Your task to perform on an android device: change the clock style Image 0: 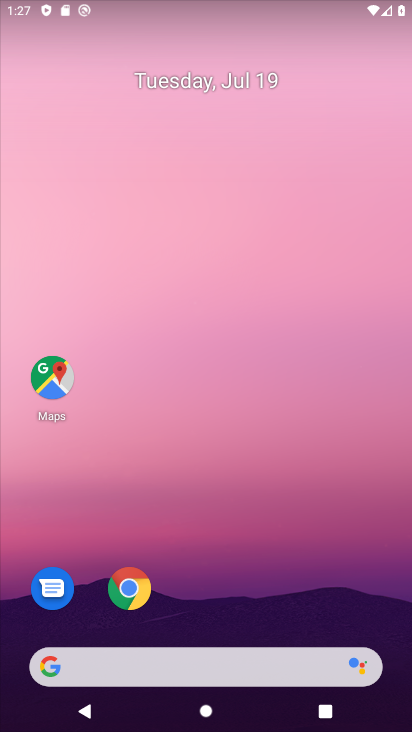
Step 0: drag from (222, 622) to (242, 111)
Your task to perform on an android device: change the clock style Image 1: 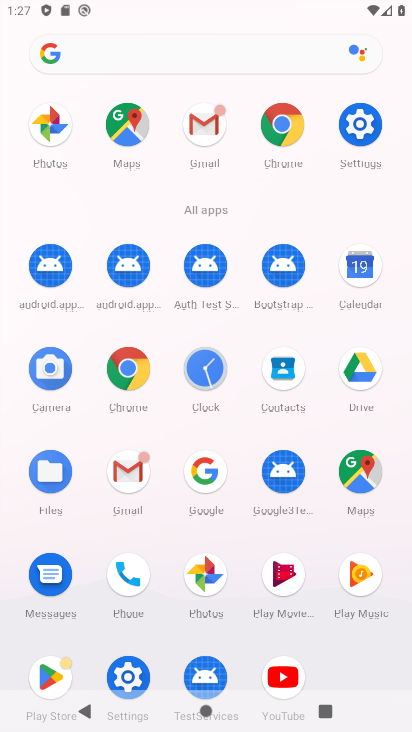
Step 1: click (213, 370)
Your task to perform on an android device: change the clock style Image 2: 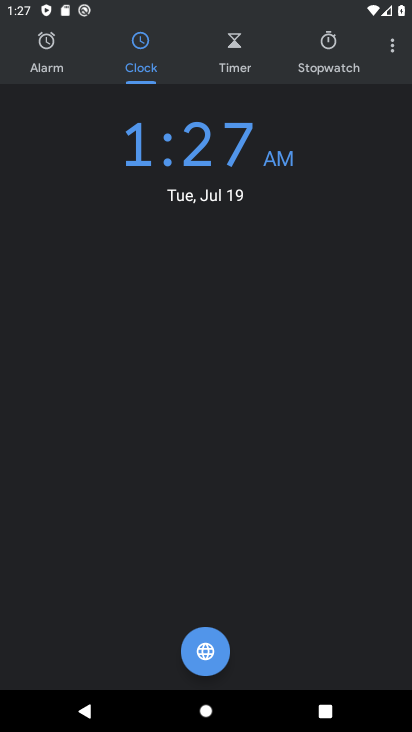
Step 2: click (395, 45)
Your task to perform on an android device: change the clock style Image 3: 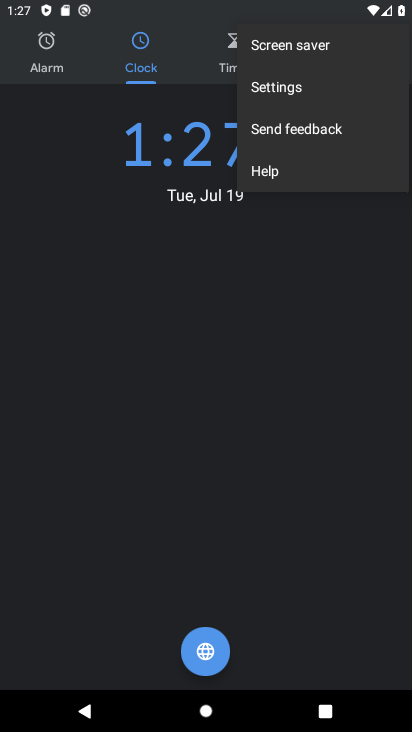
Step 3: click (331, 84)
Your task to perform on an android device: change the clock style Image 4: 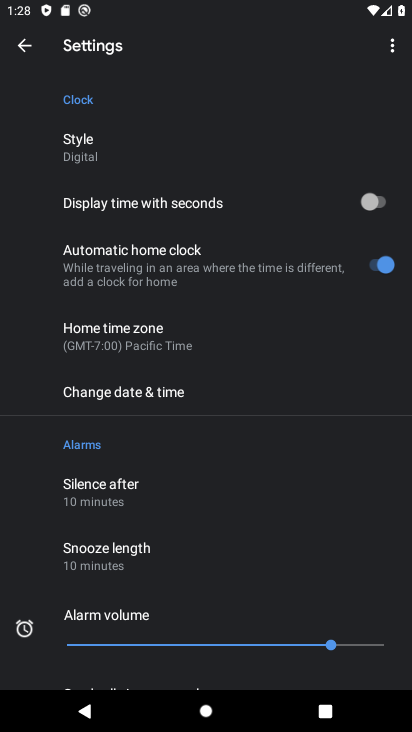
Step 4: click (269, 142)
Your task to perform on an android device: change the clock style Image 5: 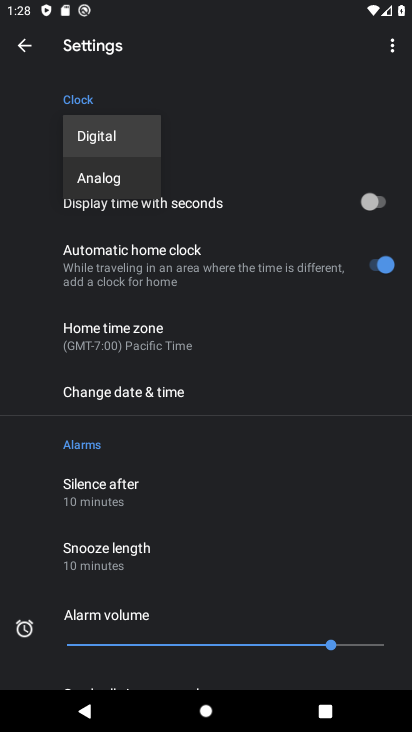
Step 5: click (136, 174)
Your task to perform on an android device: change the clock style Image 6: 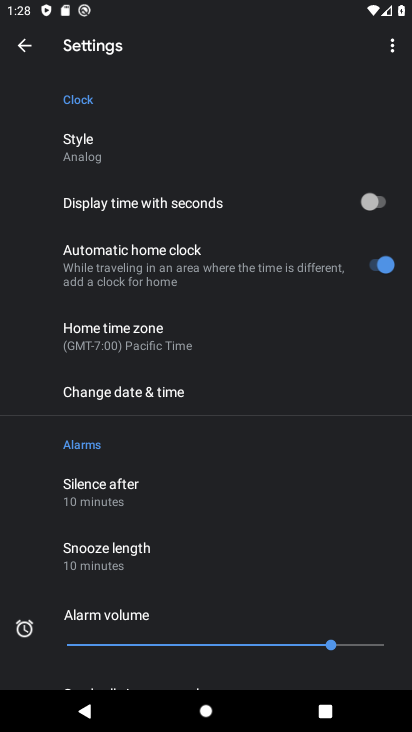
Step 6: task complete